Your task to perform on an android device: Open calendar and show me the second week of next month Image 0: 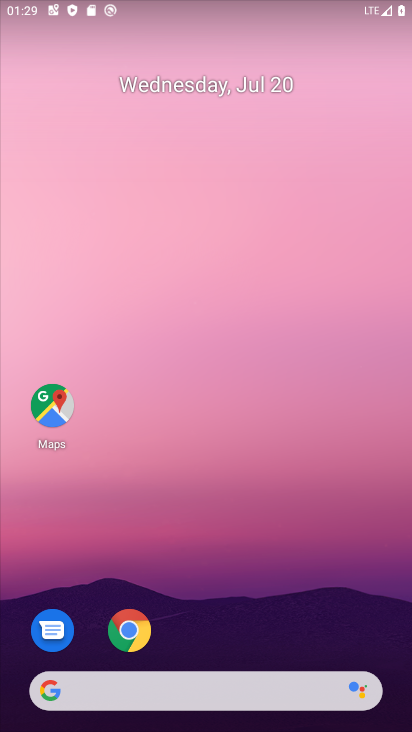
Step 0: drag from (302, 582) to (320, 138)
Your task to perform on an android device: Open calendar and show me the second week of next month Image 1: 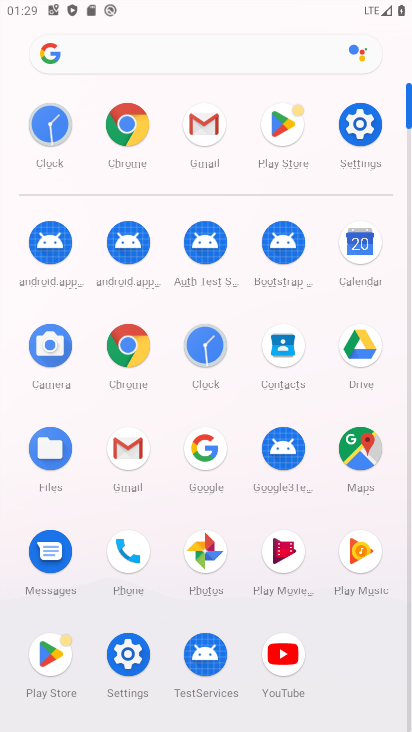
Step 1: click (376, 249)
Your task to perform on an android device: Open calendar and show me the second week of next month Image 2: 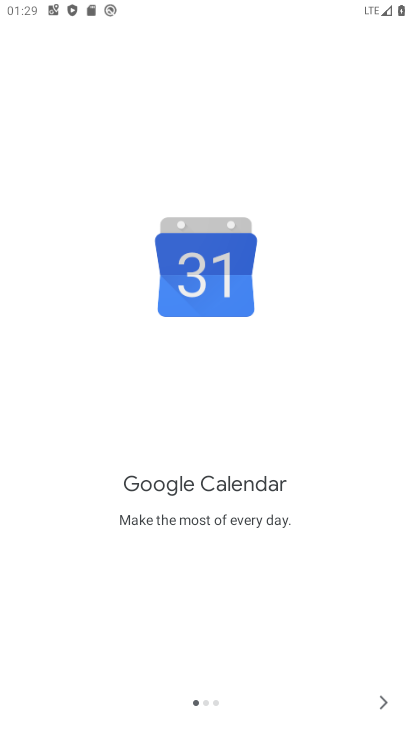
Step 2: click (392, 697)
Your task to perform on an android device: Open calendar and show me the second week of next month Image 3: 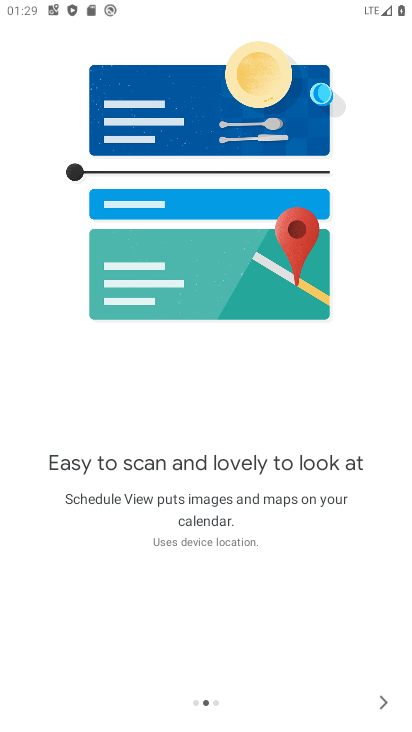
Step 3: click (391, 697)
Your task to perform on an android device: Open calendar and show me the second week of next month Image 4: 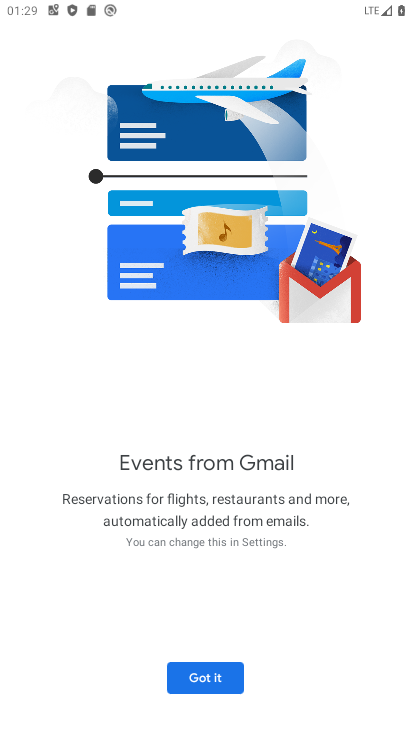
Step 4: click (189, 675)
Your task to perform on an android device: Open calendar and show me the second week of next month Image 5: 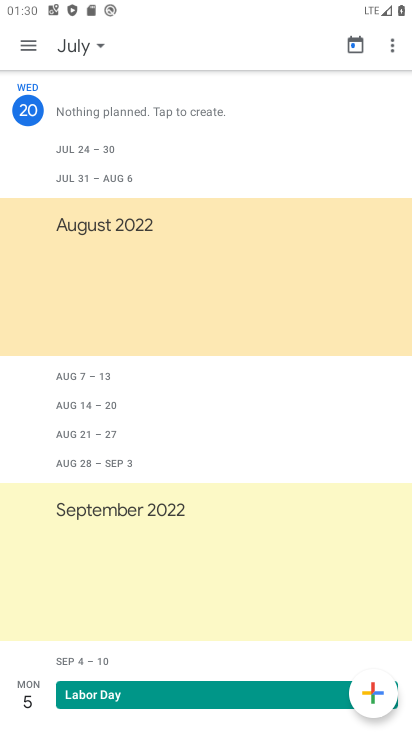
Step 5: click (65, 45)
Your task to perform on an android device: Open calendar and show me the second week of next month Image 6: 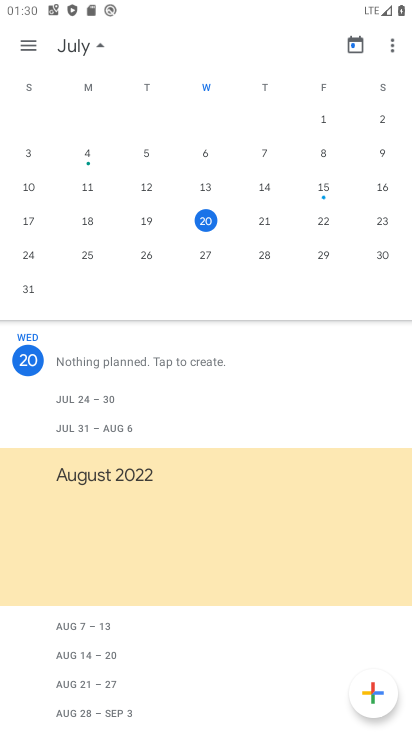
Step 6: drag from (369, 217) to (3, 202)
Your task to perform on an android device: Open calendar and show me the second week of next month Image 7: 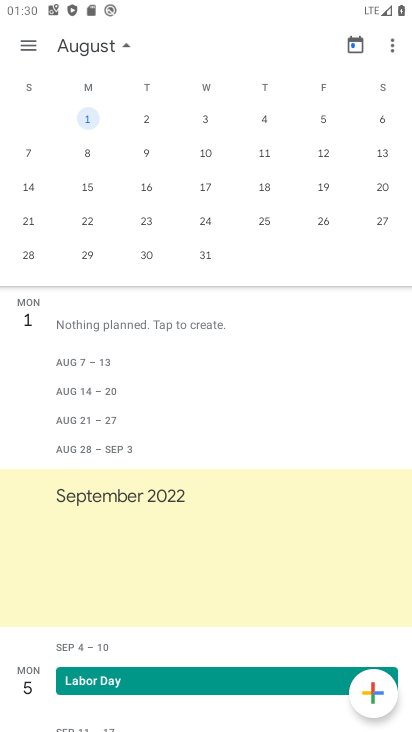
Step 7: click (199, 151)
Your task to perform on an android device: Open calendar and show me the second week of next month Image 8: 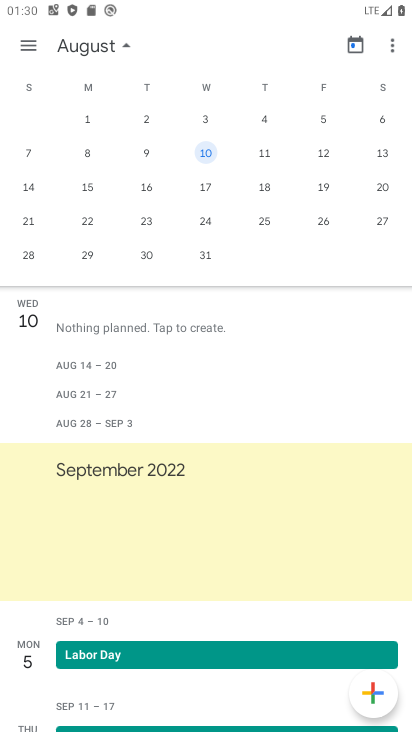
Step 8: click (22, 51)
Your task to perform on an android device: Open calendar and show me the second week of next month Image 9: 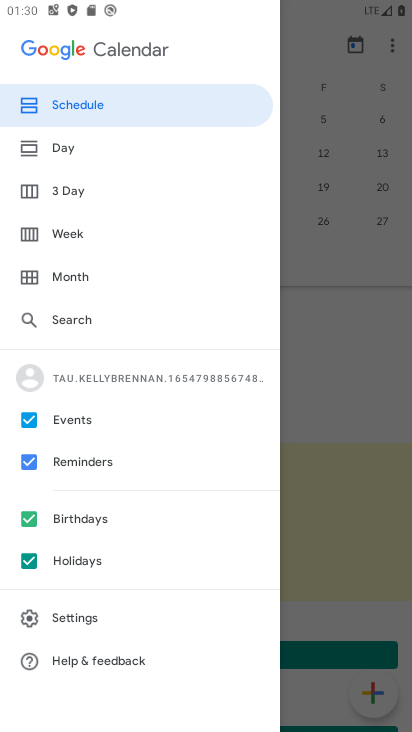
Step 9: click (75, 239)
Your task to perform on an android device: Open calendar and show me the second week of next month Image 10: 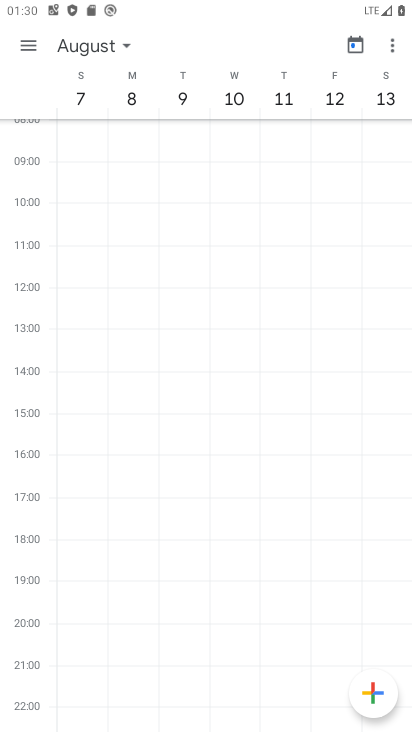
Step 10: task complete